Your task to perform on an android device: remove spam from my inbox in the gmail app Image 0: 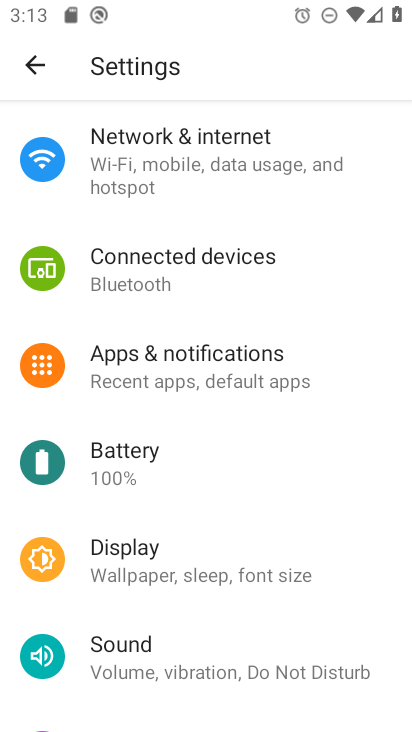
Step 0: press home button
Your task to perform on an android device: remove spam from my inbox in the gmail app Image 1: 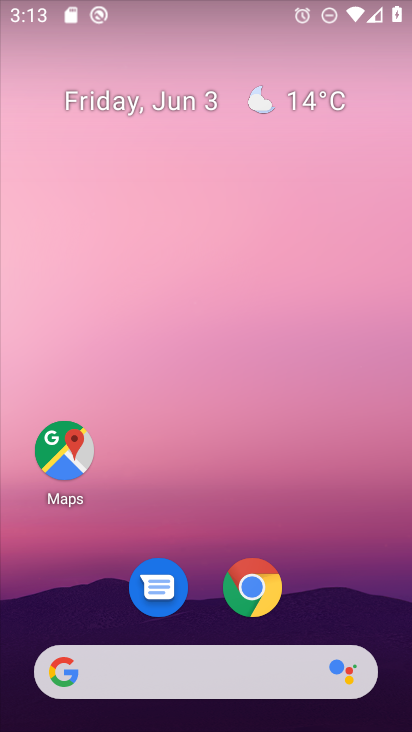
Step 1: drag from (228, 675) to (239, 151)
Your task to perform on an android device: remove spam from my inbox in the gmail app Image 2: 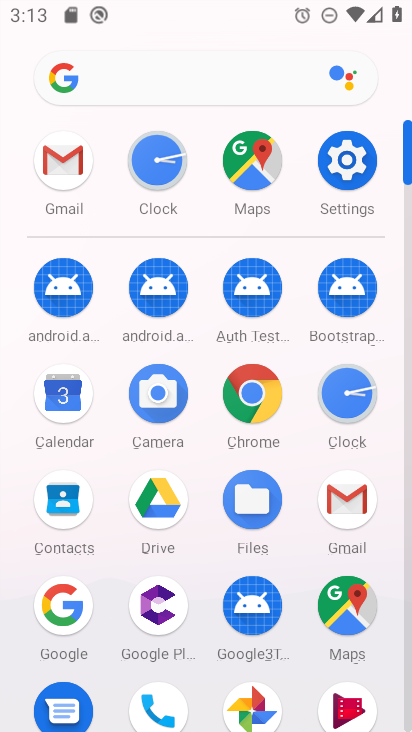
Step 2: click (351, 510)
Your task to perform on an android device: remove spam from my inbox in the gmail app Image 3: 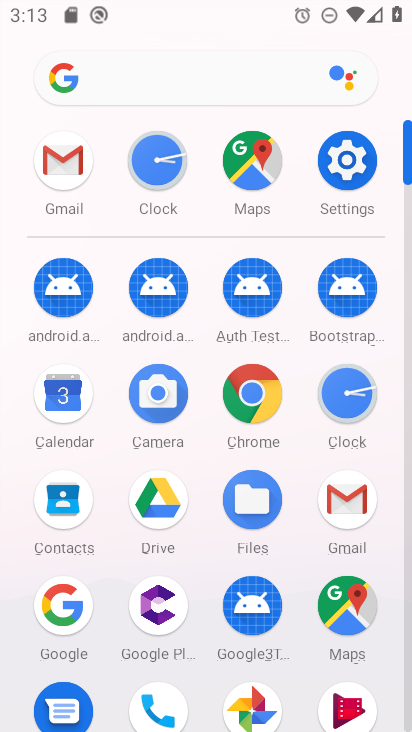
Step 3: click (347, 494)
Your task to perform on an android device: remove spam from my inbox in the gmail app Image 4: 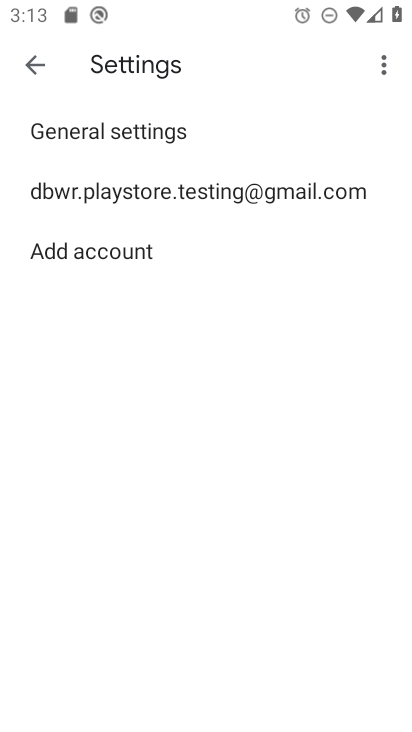
Step 4: click (31, 65)
Your task to perform on an android device: remove spam from my inbox in the gmail app Image 5: 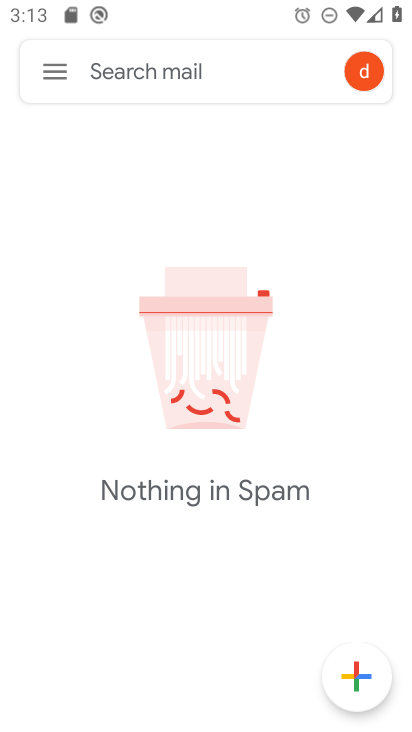
Step 5: click (49, 70)
Your task to perform on an android device: remove spam from my inbox in the gmail app Image 6: 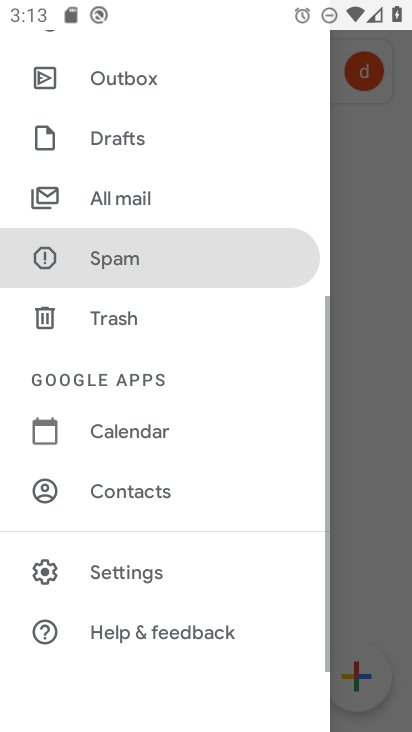
Step 6: drag from (154, 113) to (183, 521)
Your task to perform on an android device: remove spam from my inbox in the gmail app Image 7: 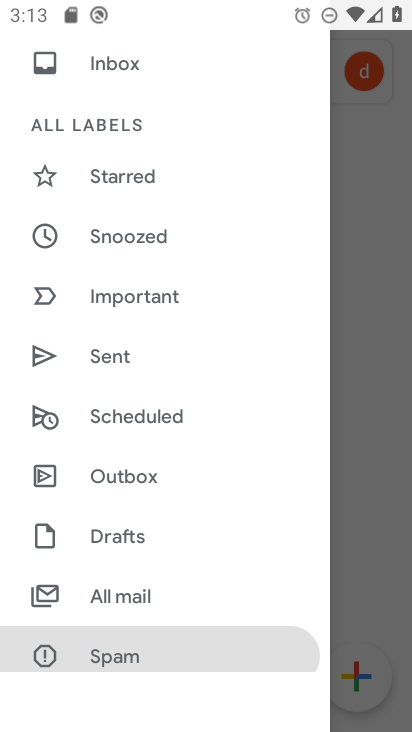
Step 7: drag from (161, 114) to (192, 467)
Your task to perform on an android device: remove spam from my inbox in the gmail app Image 8: 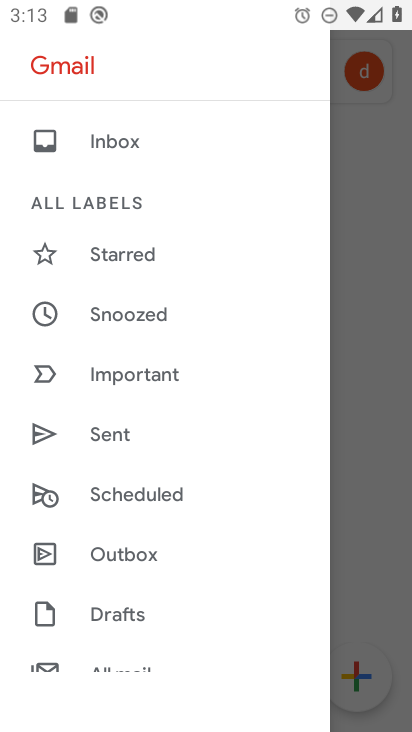
Step 8: click (118, 146)
Your task to perform on an android device: remove spam from my inbox in the gmail app Image 9: 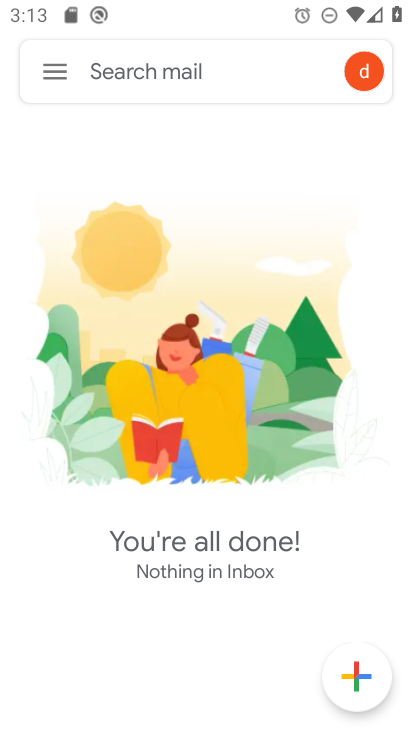
Step 9: task complete